Your task to perform on an android device: change the clock display to show seconds Image 0: 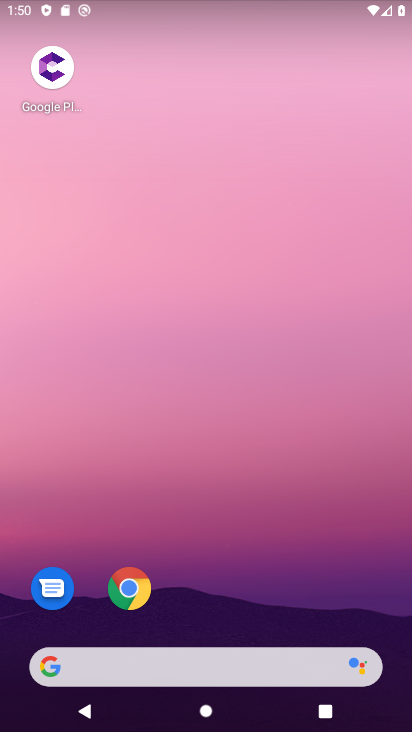
Step 0: drag from (288, 607) to (398, 71)
Your task to perform on an android device: change the clock display to show seconds Image 1: 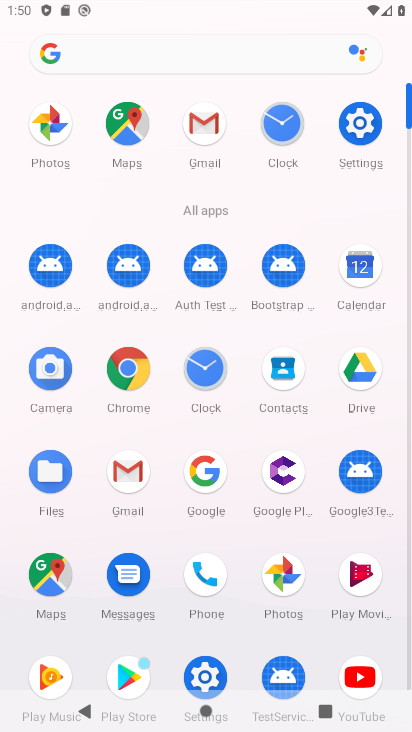
Step 1: click (351, 168)
Your task to perform on an android device: change the clock display to show seconds Image 2: 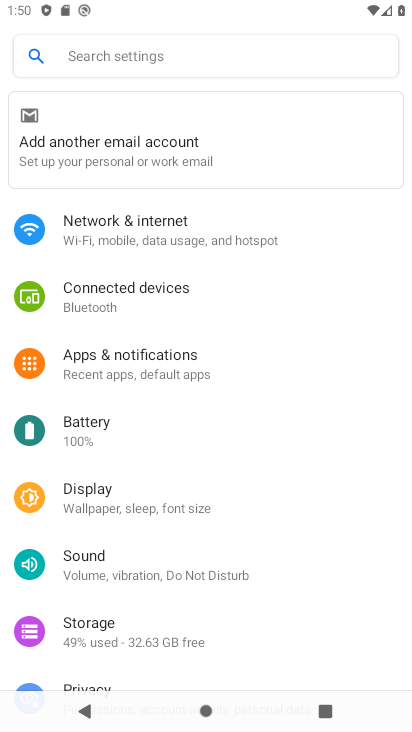
Step 2: press home button
Your task to perform on an android device: change the clock display to show seconds Image 3: 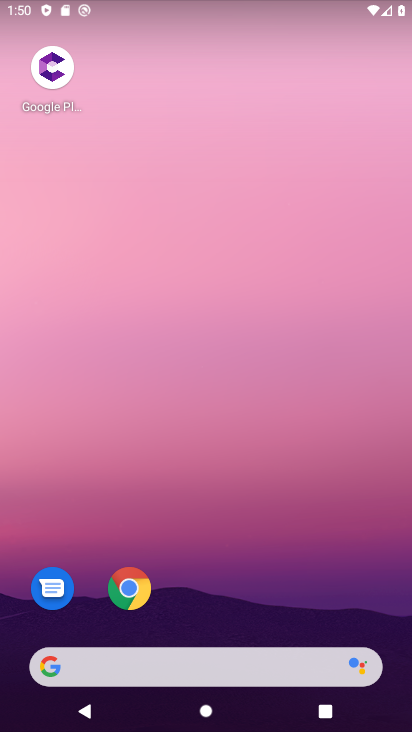
Step 3: drag from (289, 572) to (310, 173)
Your task to perform on an android device: change the clock display to show seconds Image 4: 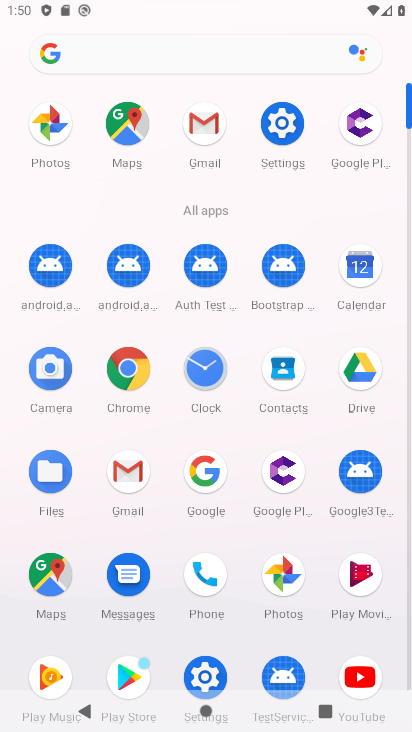
Step 4: click (199, 386)
Your task to perform on an android device: change the clock display to show seconds Image 5: 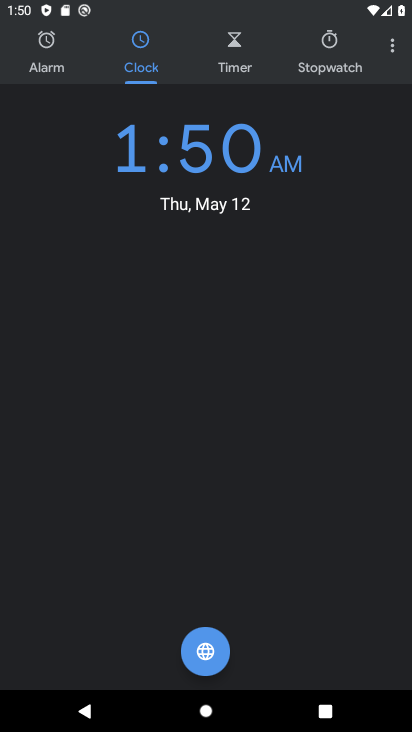
Step 5: click (402, 58)
Your task to perform on an android device: change the clock display to show seconds Image 6: 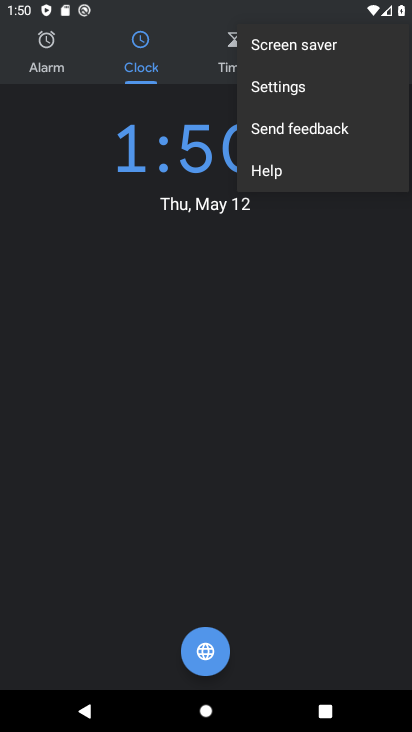
Step 6: click (340, 82)
Your task to perform on an android device: change the clock display to show seconds Image 7: 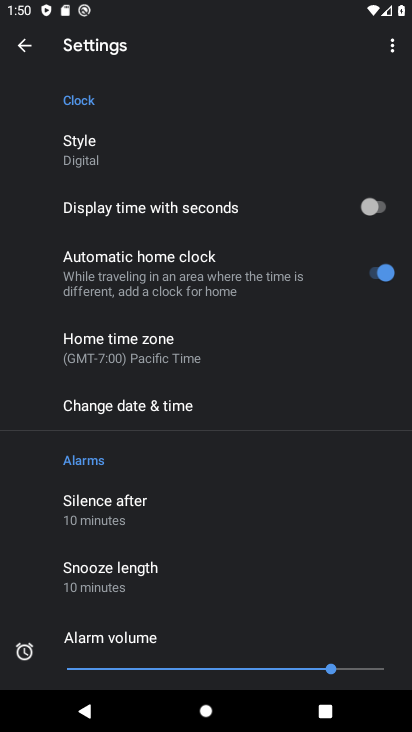
Step 7: drag from (259, 169) to (272, 110)
Your task to perform on an android device: change the clock display to show seconds Image 8: 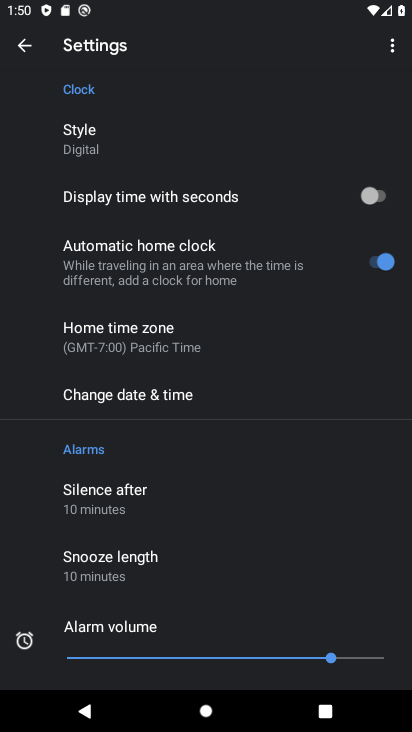
Step 8: click (331, 183)
Your task to perform on an android device: change the clock display to show seconds Image 9: 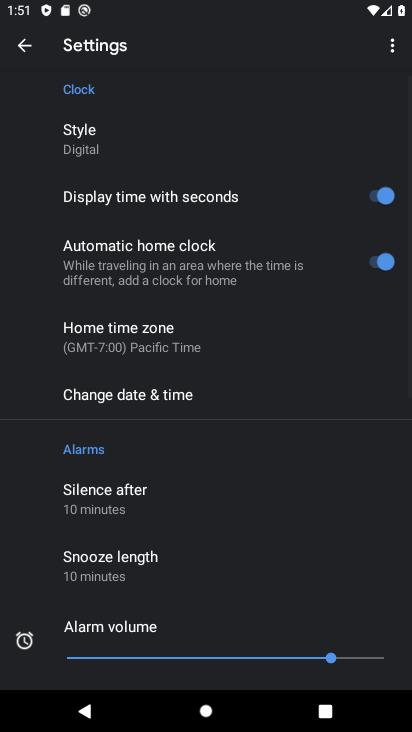
Step 9: task complete